Your task to perform on an android device: Open the Play Movies app and select the watchlist tab. Image 0: 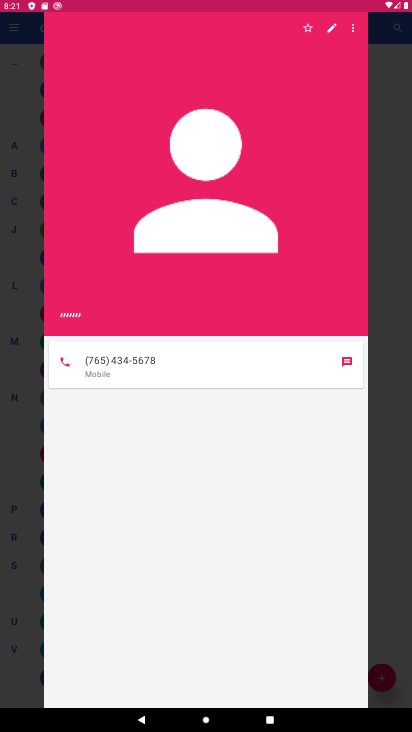
Step 0: press back button
Your task to perform on an android device: Open the Play Movies app and select the watchlist tab. Image 1: 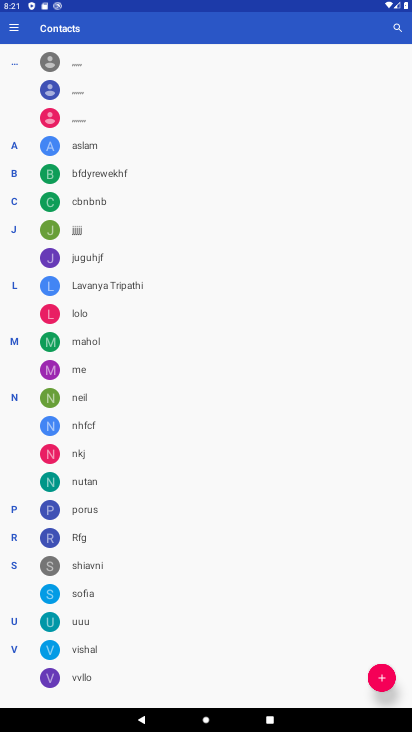
Step 1: press back button
Your task to perform on an android device: Open the Play Movies app and select the watchlist tab. Image 2: 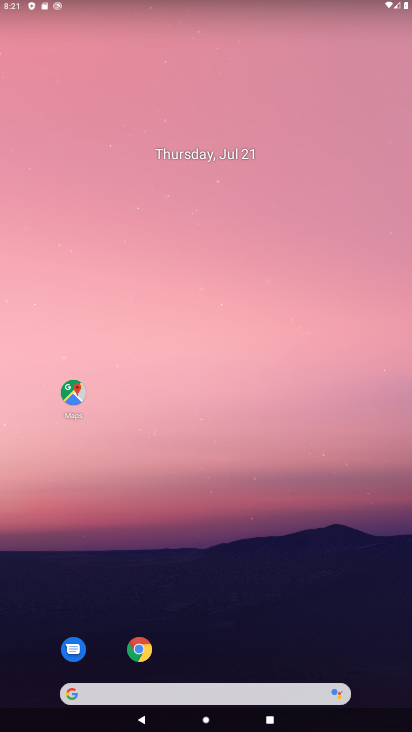
Step 2: drag from (196, 643) to (279, 71)
Your task to perform on an android device: Open the Play Movies app and select the watchlist tab. Image 3: 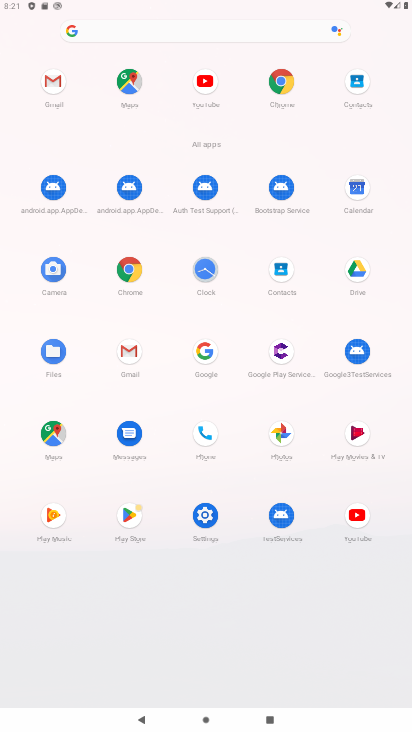
Step 3: click (359, 432)
Your task to perform on an android device: Open the Play Movies app and select the watchlist tab. Image 4: 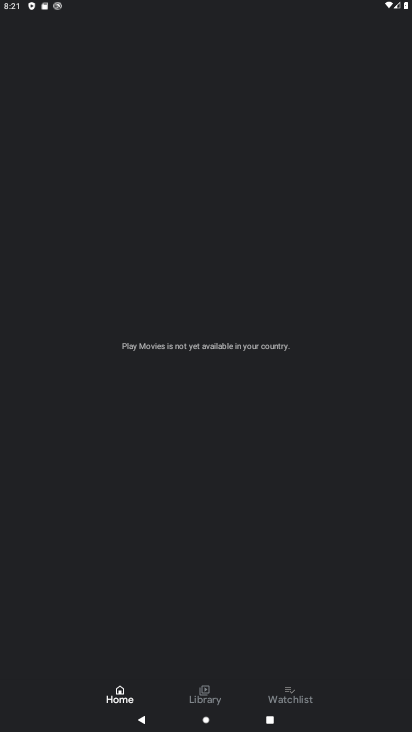
Step 4: click (306, 694)
Your task to perform on an android device: Open the Play Movies app and select the watchlist tab. Image 5: 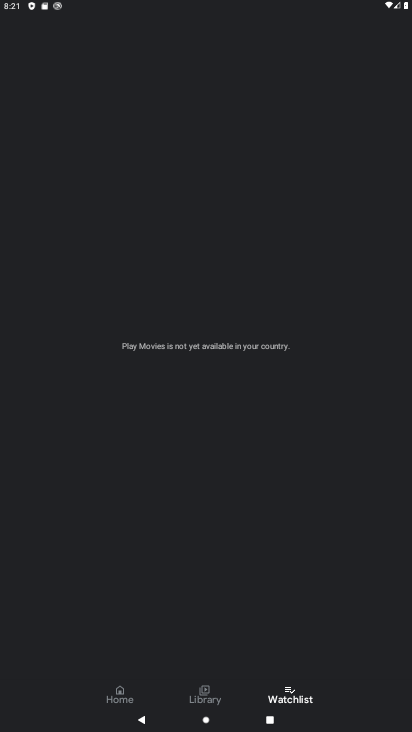
Step 5: task complete